Your task to perform on an android device: Open wifi settings Image 0: 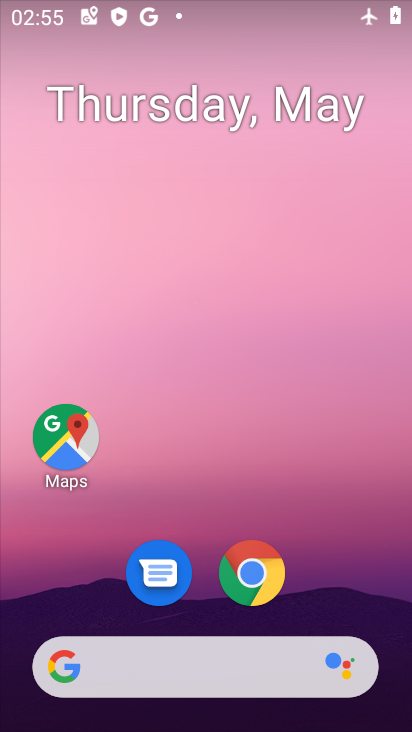
Step 0: drag from (304, 558) to (301, 177)
Your task to perform on an android device: Open wifi settings Image 1: 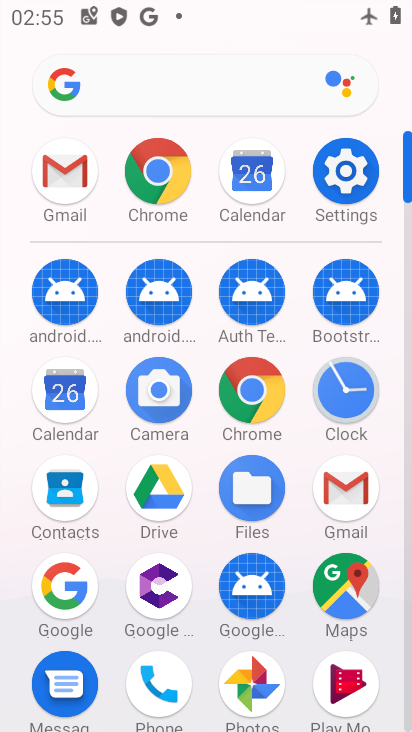
Step 1: click (343, 171)
Your task to perform on an android device: Open wifi settings Image 2: 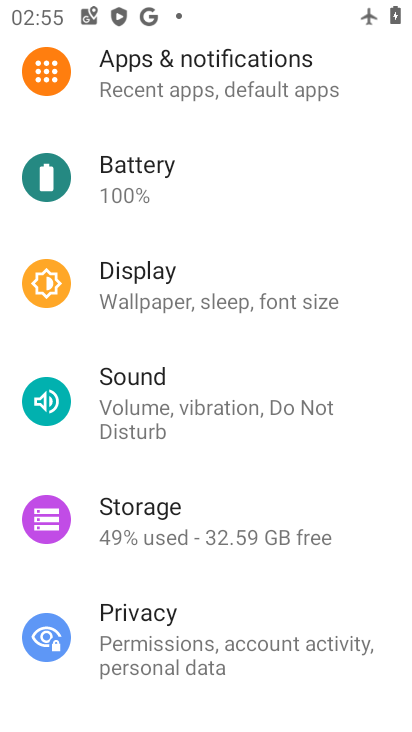
Step 2: drag from (215, 67) to (234, 421)
Your task to perform on an android device: Open wifi settings Image 3: 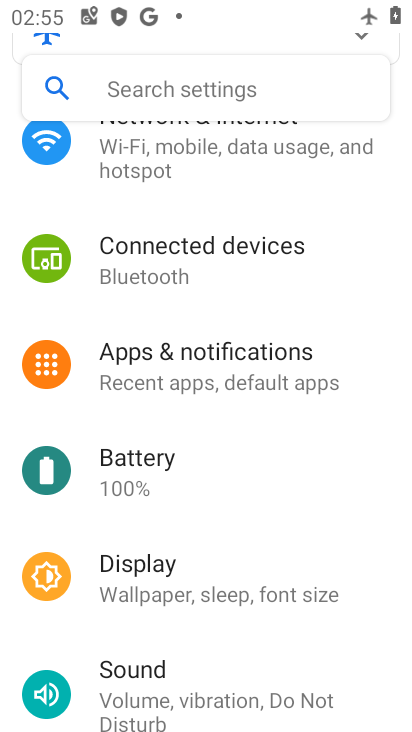
Step 3: click (223, 144)
Your task to perform on an android device: Open wifi settings Image 4: 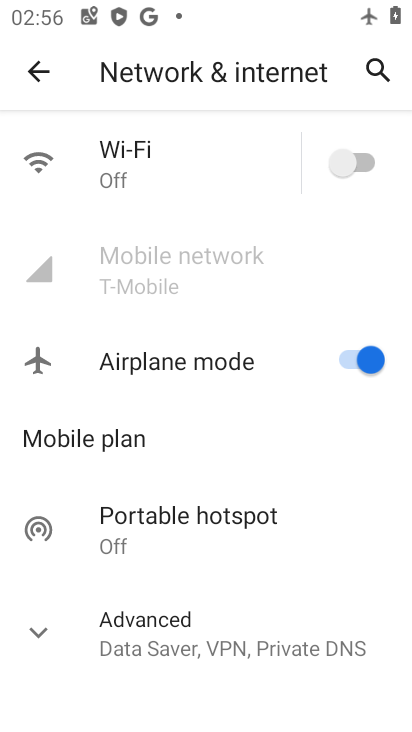
Step 4: task complete